Your task to perform on an android device: Open the web browser Image 0: 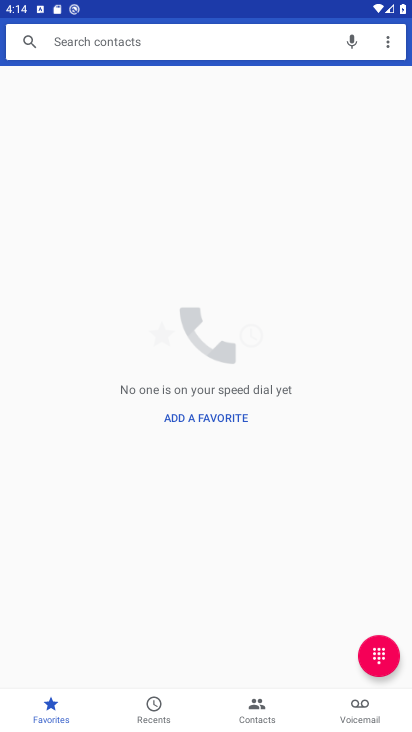
Step 0: press home button
Your task to perform on an android device: Open the web browser Image 1: 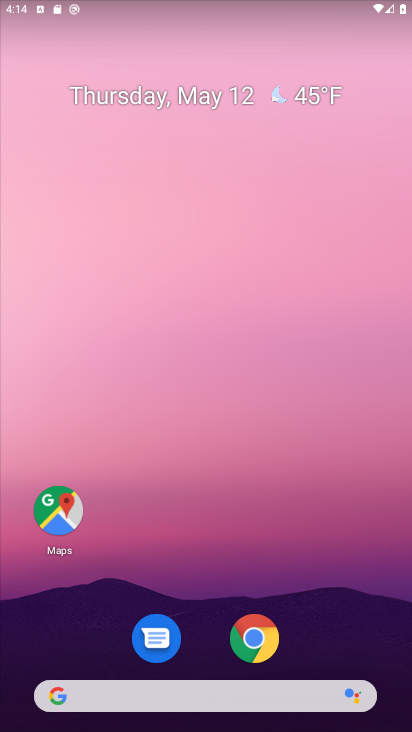
Step 1: click (255, 645)
Your task to perform on an android device: Open the web browser Image 2: 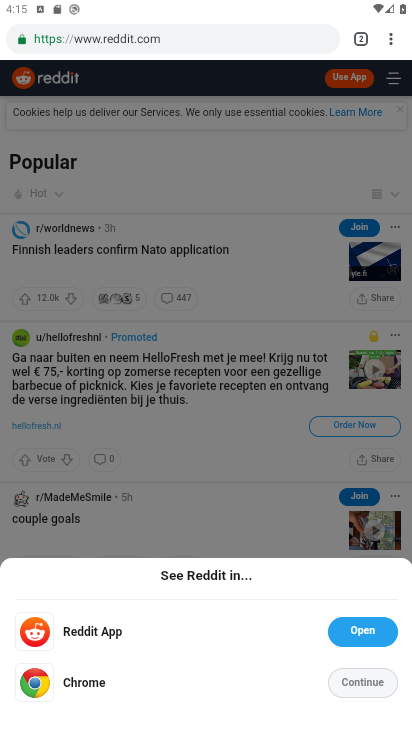
Step 2: task complete